Your task to perform on an android device: change the clock display to show seconds Image 0: 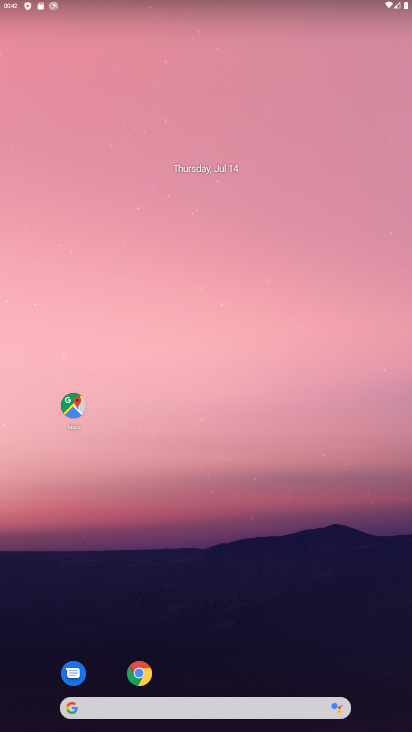
Step 0: drag from (309, 646) to (292, 193)
Your task to perform on an android device: change the clock display to show seconds Image 1: 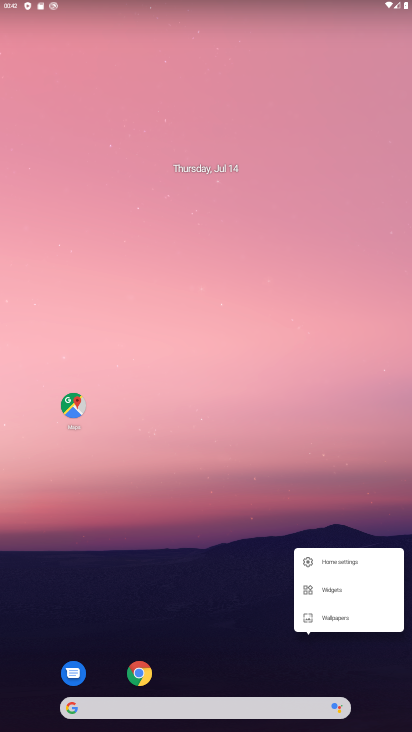
Step 1: click (256, 294)
Your task to perform on an android device: change the clock display to show seconds Image 2: 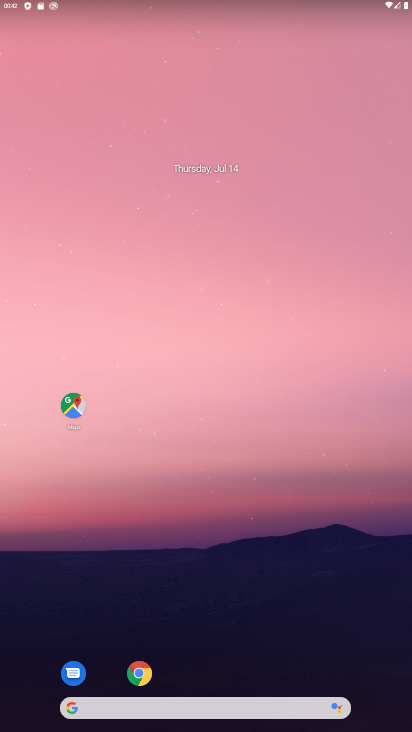
Step 2: drag from (233, 669) to (218, 307)
Your task to perform on an android device: change the clock display to show seconds Image 3: 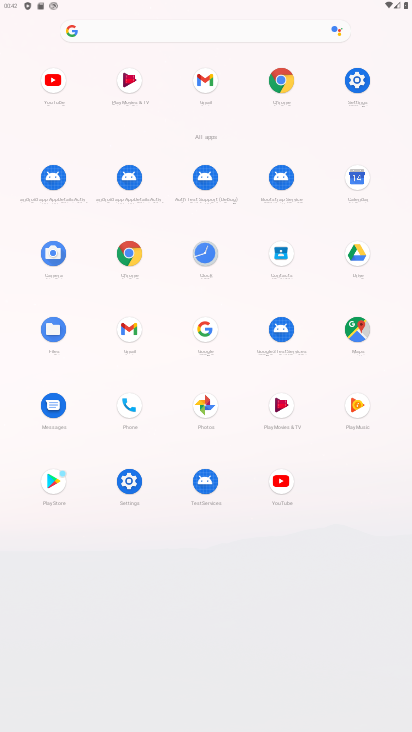
Step 3: click (351, 106)
Your task to perform on an android device: change the clock display to show seconds Image 4: 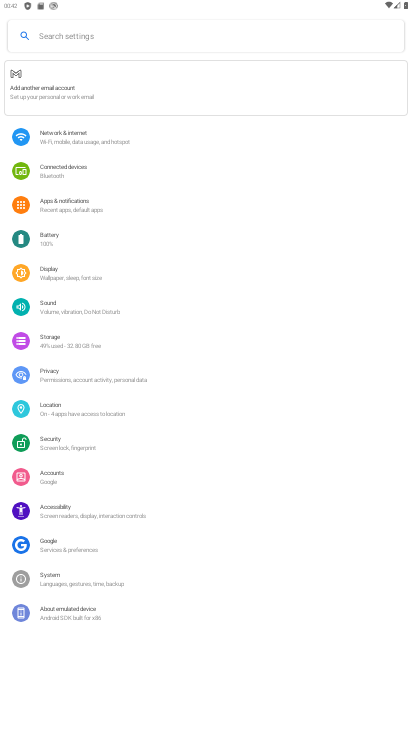
Step 4: press back button
Your task to perform on an android device: change the clock display to show seconds Image 5: 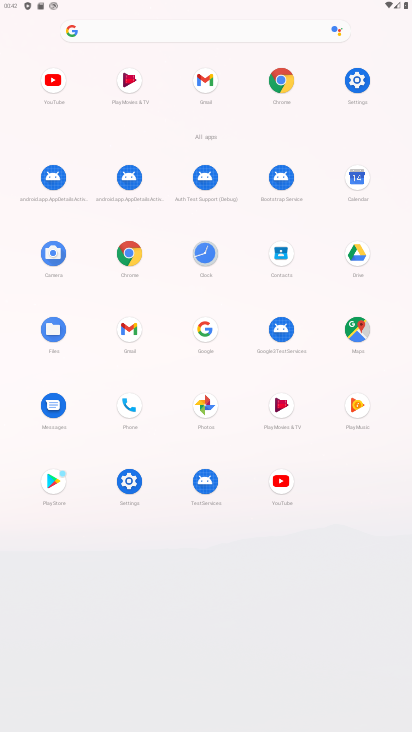
Step 5: click (208, 268)
Your task to perform on an android device: change the clock display to show seconds Image 6: 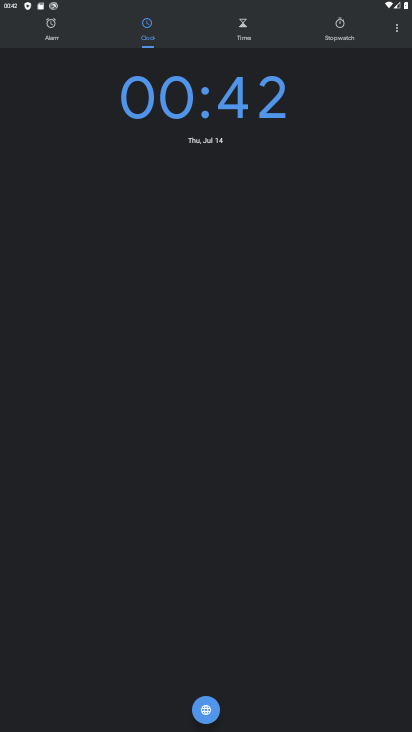
Step 6: click (402, 31)
Your task to perform on an android device: change the clock display to show seconds Image 7: 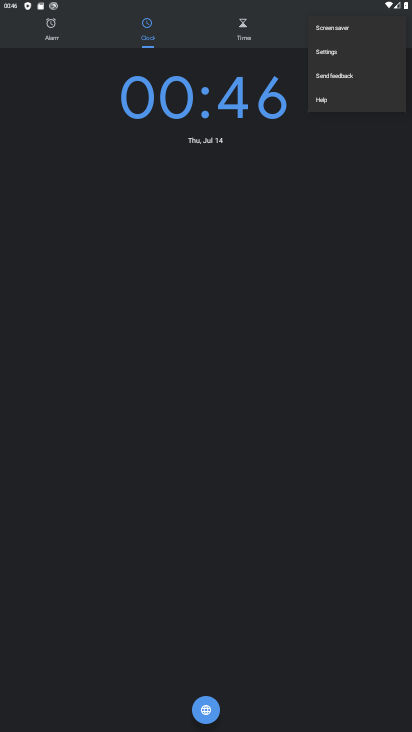
Step 7: task complete